Your task to perform on an android device: Search for usb-b on bestbuy.com, select the first entry, add it to the cart, then select checkout. Image 0: 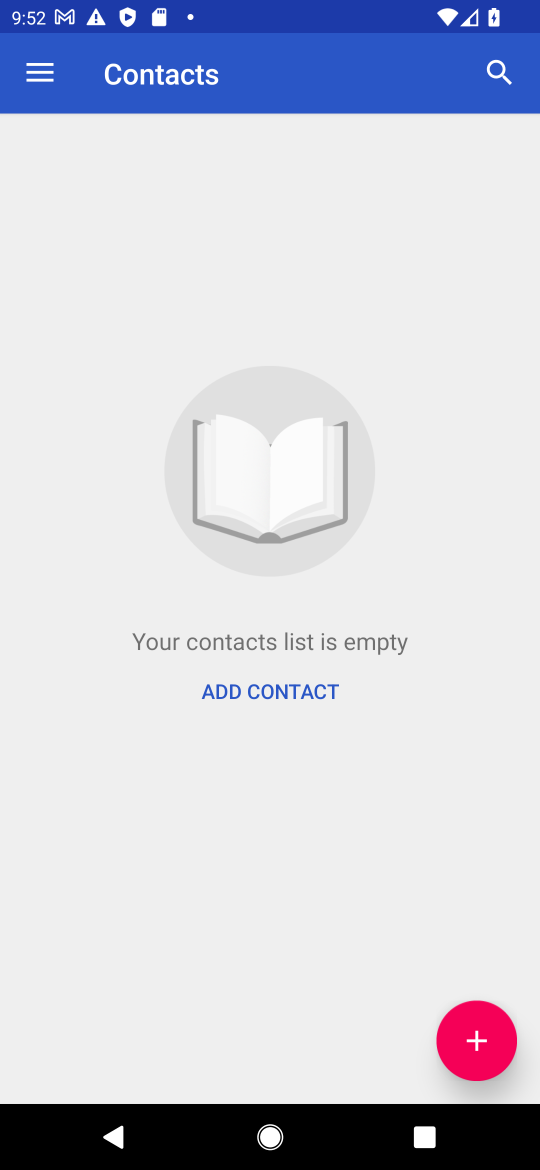
Step 0: press home button
Your task to perform on an android device: Search for usb-b on bestbuy.com, select the first entry, add it to the cart, then select checkout. Image 1: 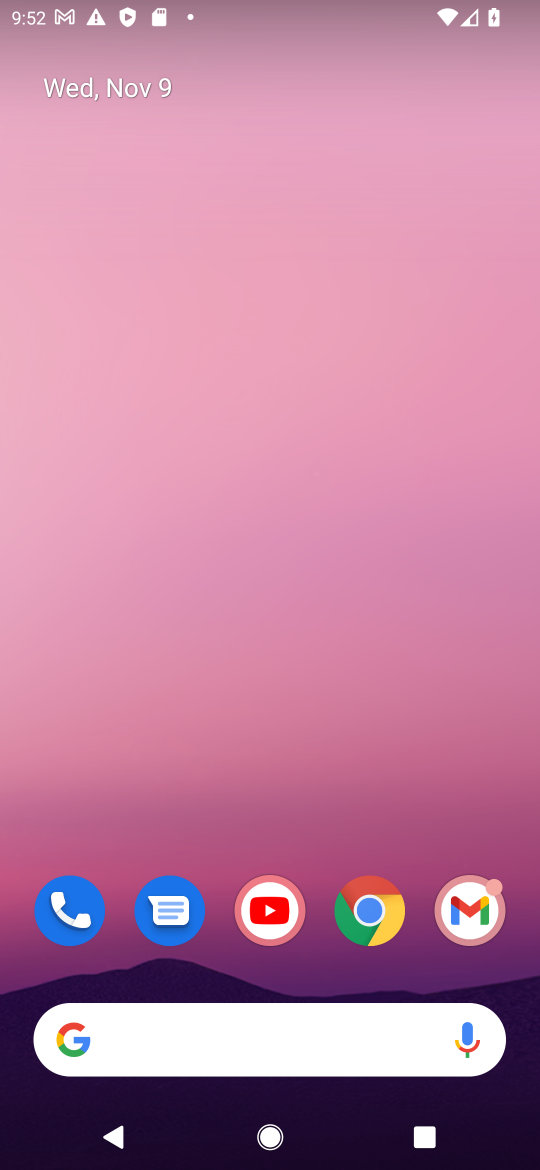
Step 1: click (363, 915)
Your task to perform on an android device: Search for usb-b on bestbuy.com, select the first entry, add it to the cart, then select checkout. Image 2: 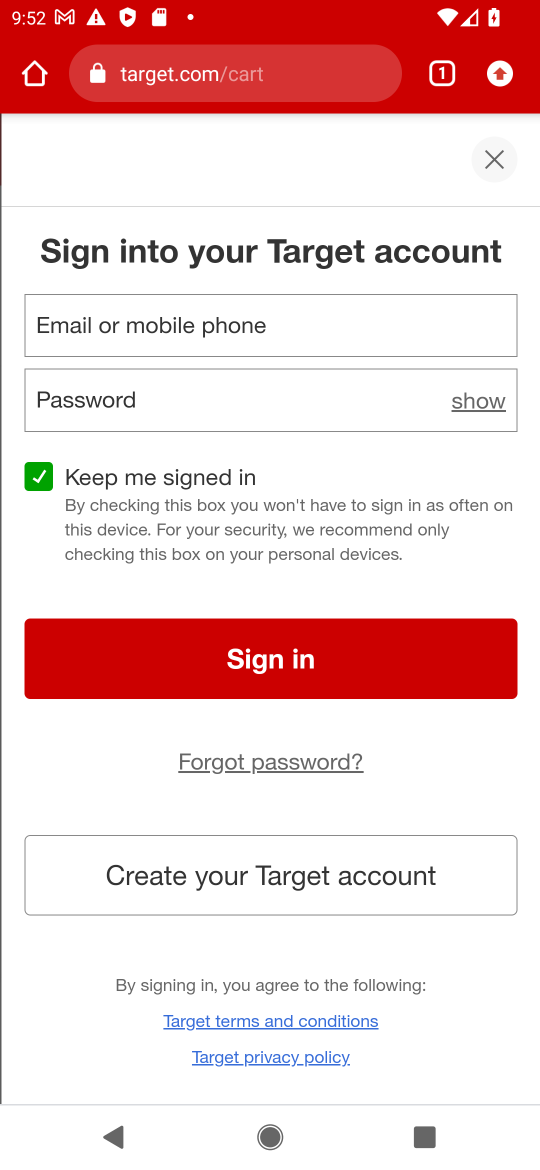
Step 2: click (152, 71)
Your task to perform on an android device: Search for usb-b on bestbuy.com, select the first entry, add it to the cart, then select checkout. Image 3: 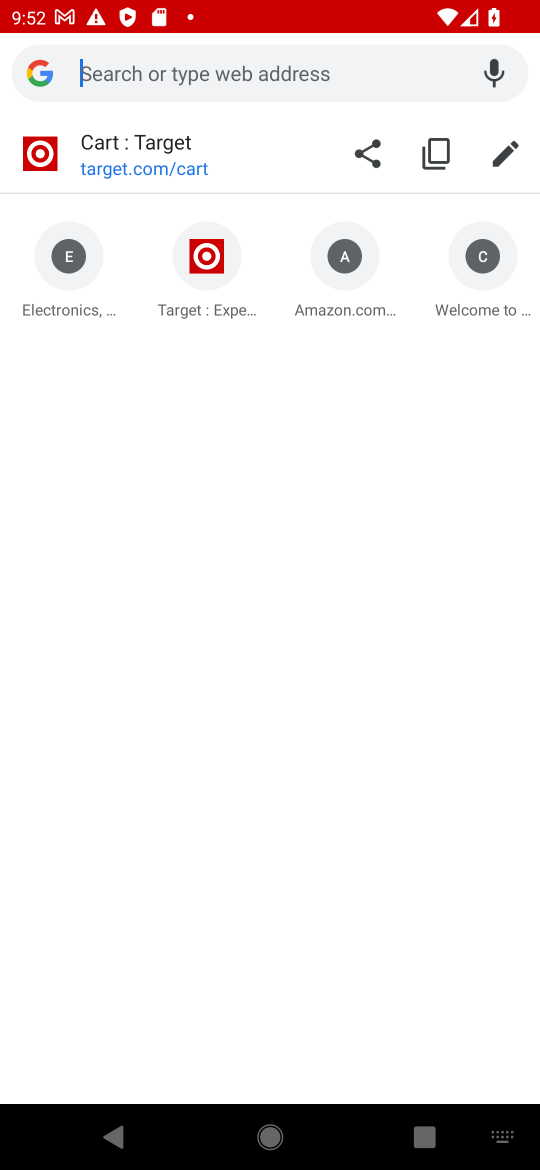
Step 3: type "bestbuy.com"
Your task to perform on an android device: Search for usb-b on bestbuy.com, select the first entry, add it to the cart, then select checkout. Image 4: 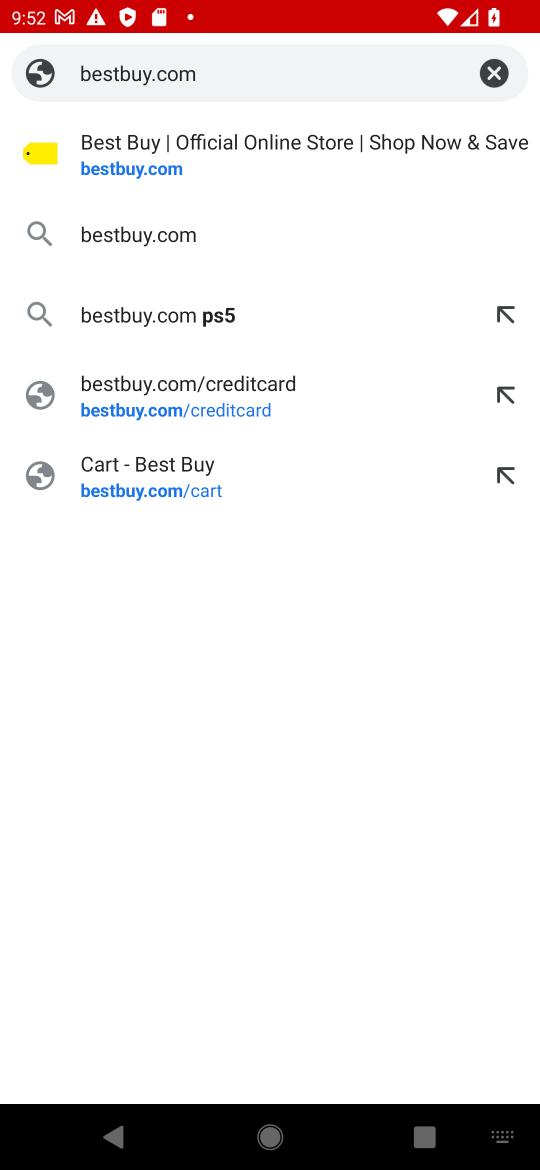
Step 4: click (141, 171)
Your task to perform on an android device: Search for usb-b on bestbuy.com, select the first entry, add it to the cart, then select checkout. Image 5: 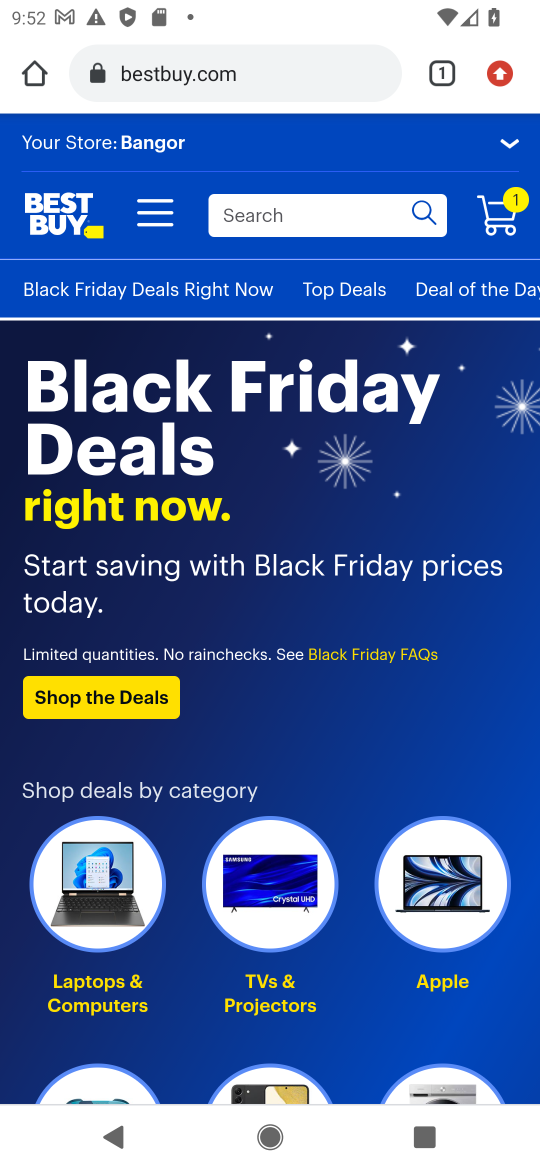
Step 5: click (237, 206)
Your task to perform on an android device: Search for usb-b on bestbuy.com, select the first entry, add it to the cart, then select checkout. Image 6: 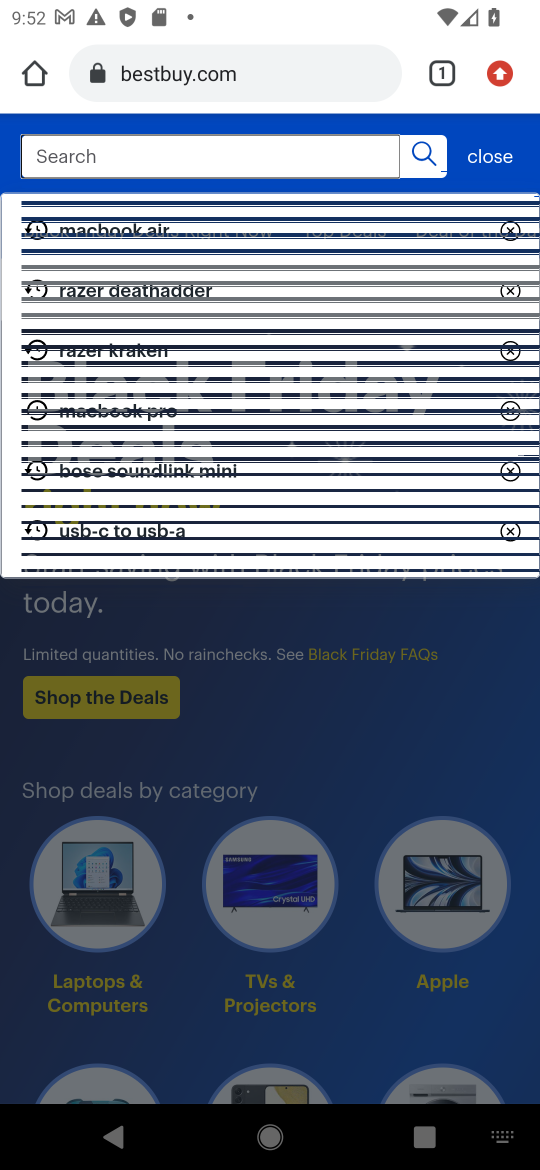
Step 6: type "usb-b"
Your task to perform on an android device: Search for usb-b on bestbuy.com, select the first entry, add it to the cart, then select checkout. Image 7: 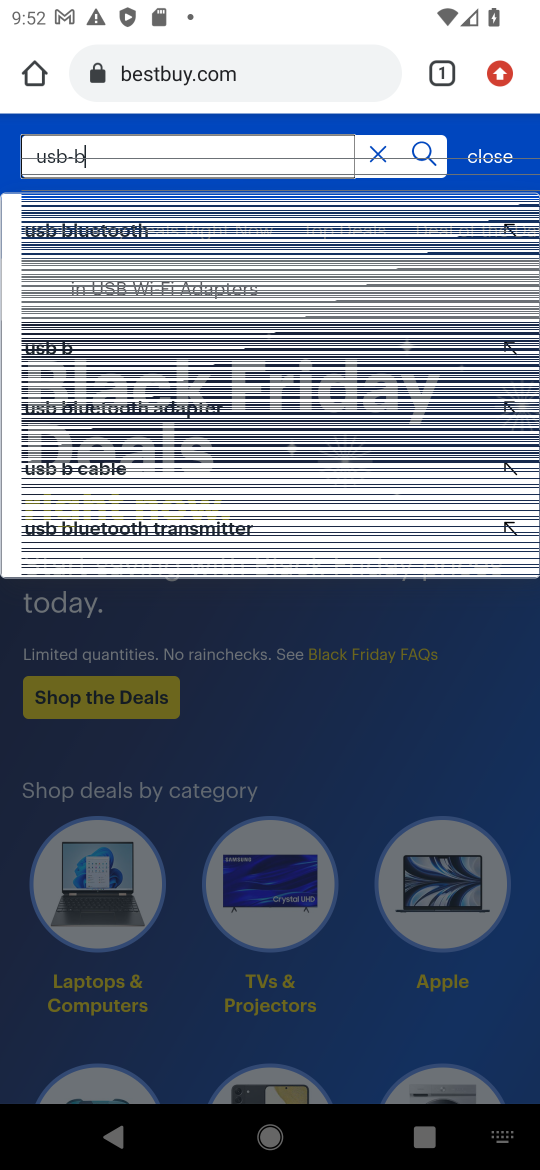
Step 7: click (63, 345)
Your task to perform on an android device: Search for usb-b on bestbuy.com, select the first entry, add it to the cart, then select checkout. Image 8: 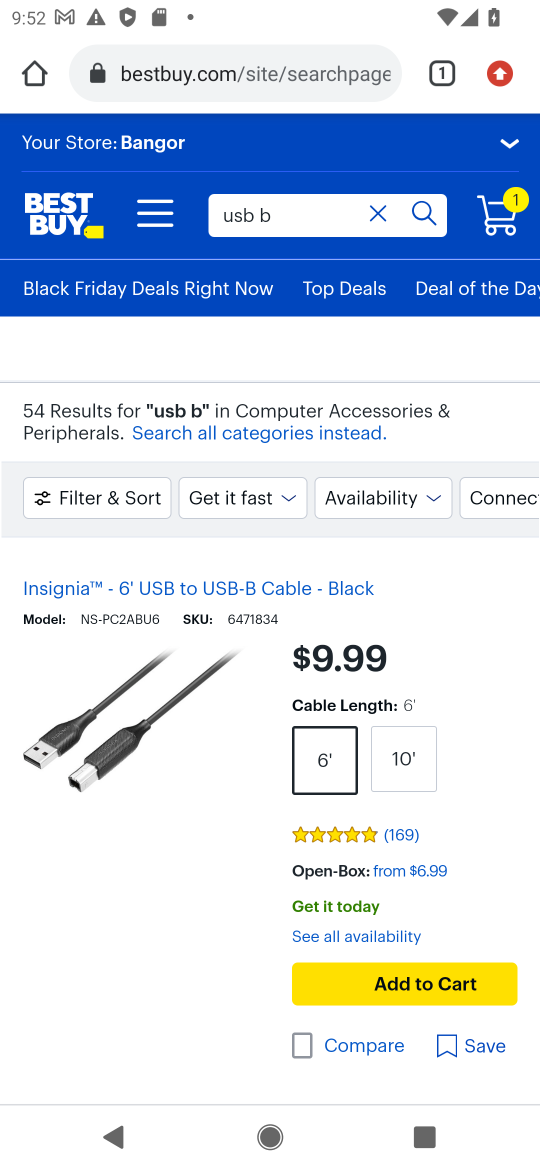
Step 8: drag from (130, 754) to (153, 575)
Your task to perform on an android device: Search for usb-b on bestbuy.com, select the first entry, add it to the cart, then select checkout. Image 9: 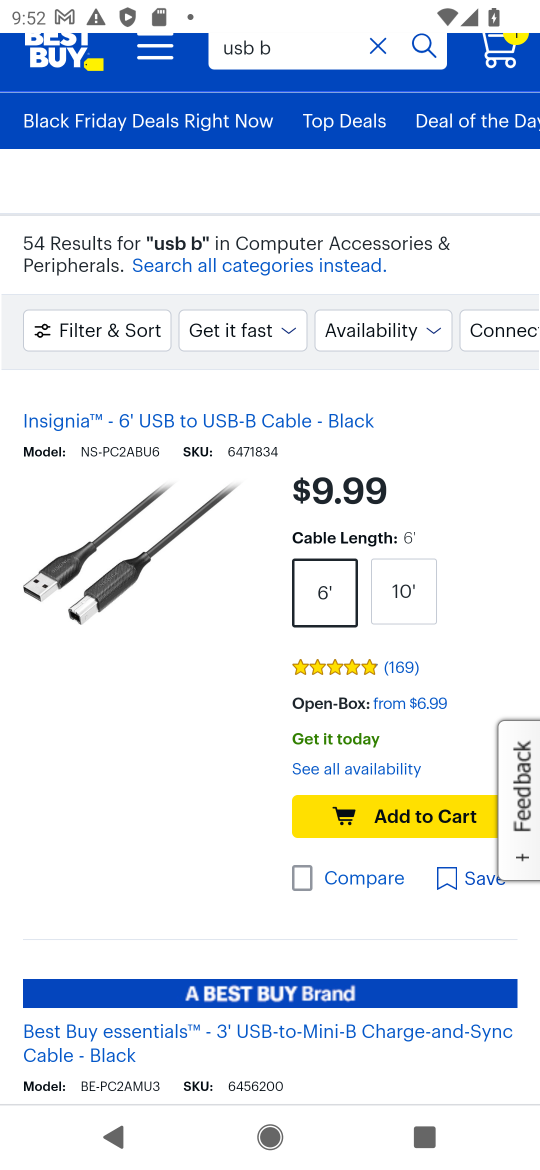
Step 9: click (371, 813)
Your task to perform on an android device: Search for usb-b on bestbuy.com, select the first entry, add it to the cart, then select checkout. Image 10: 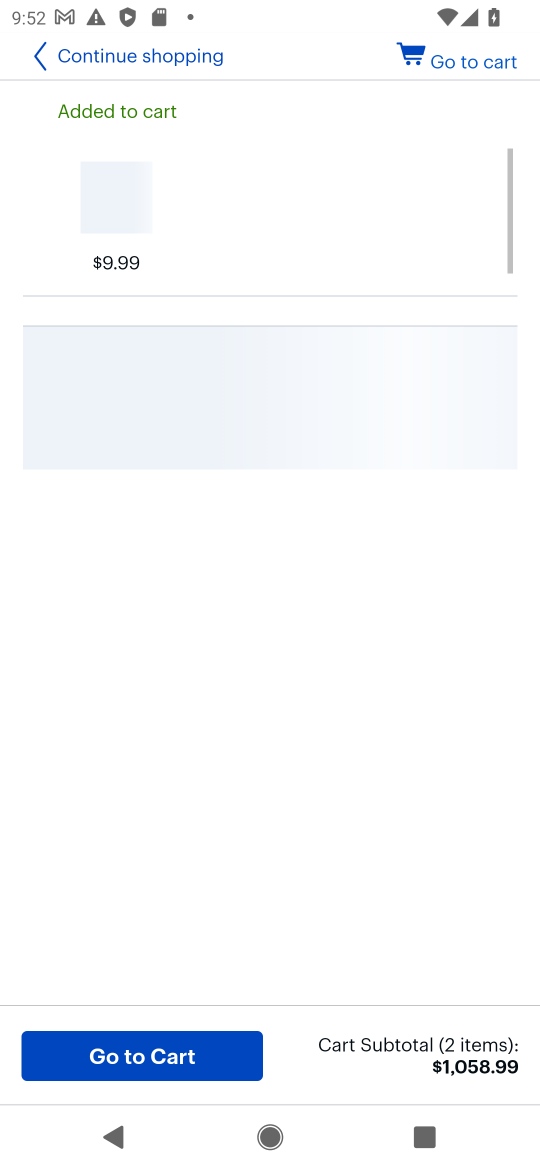
Step 10: click (486, 62)
Your task to perform on an android device: Search for usb-b on bestbuy.com, select the first entry, add it to the cart, then select checkout. Image 11: 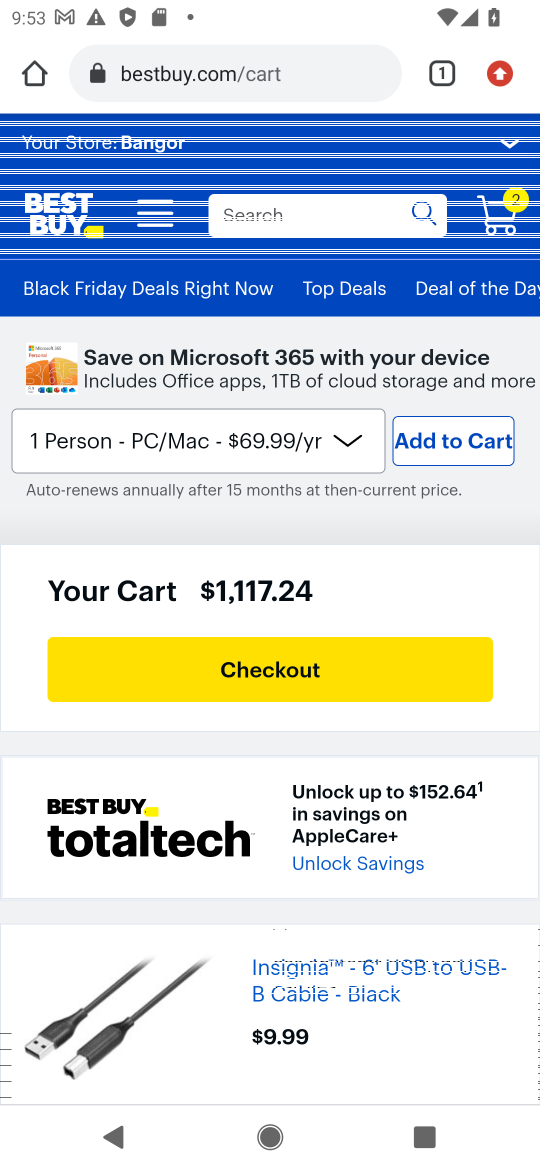
Step 11: click (259, 674)
Your task to perform on an android device: Search for usb-b on bestbuy.com, select the first entry, add it to the cart, then select checkout. Image 12: 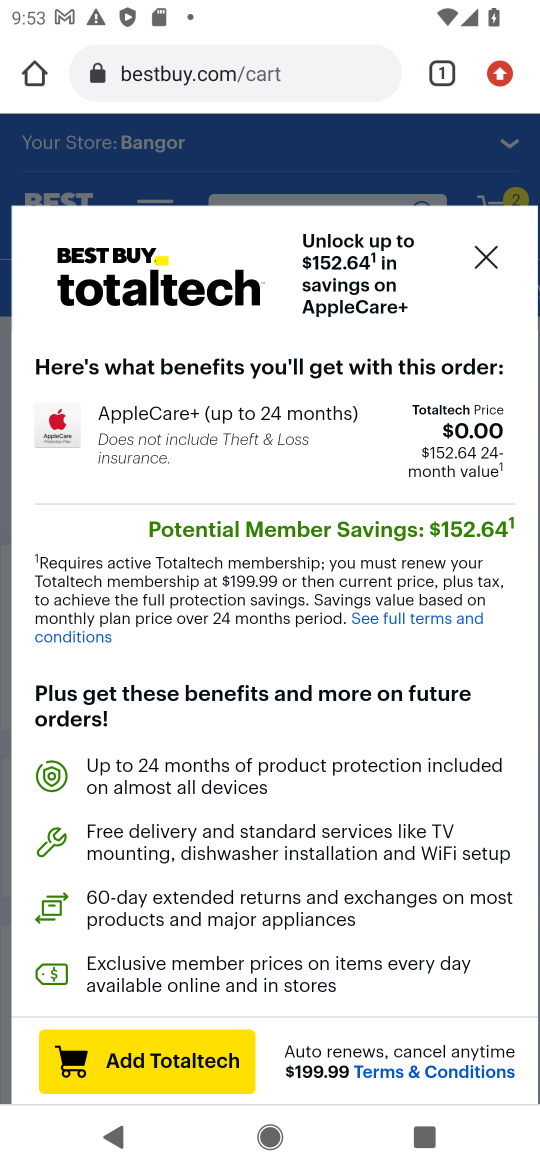
Step 12: click (468, 261)
Your task to perform on an android device: Search for usb-b on bestbuy.com, select the first entry, add it to the cart, then select checkout. Image 13: 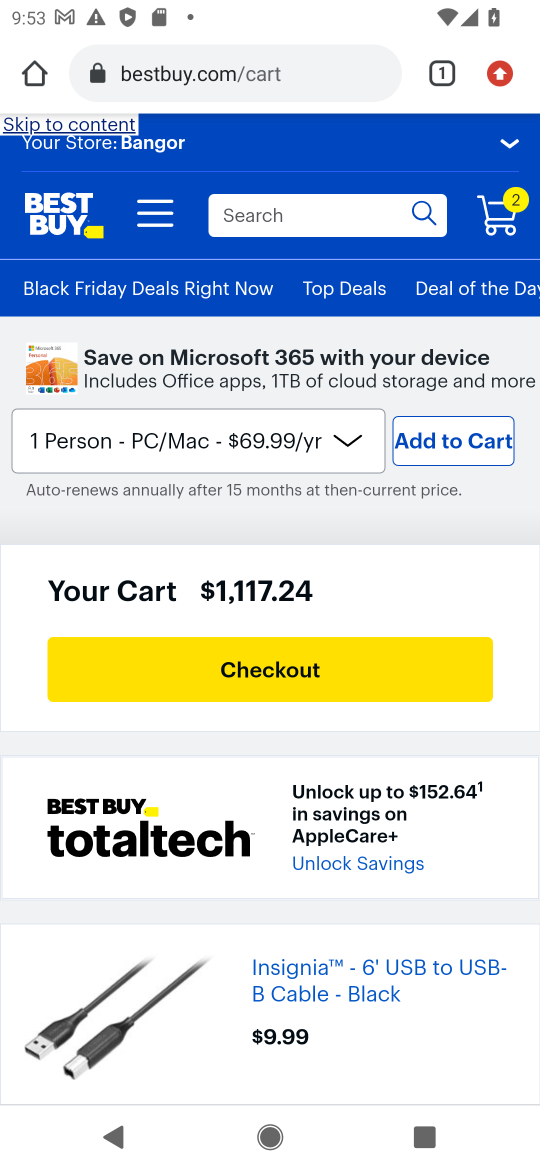
Step 13: click (242, 676)
Your task to perform on an android device: Search for usb-b on bestbuy.com, select the first entry, add it to the cart, then select checkout. Image 14: 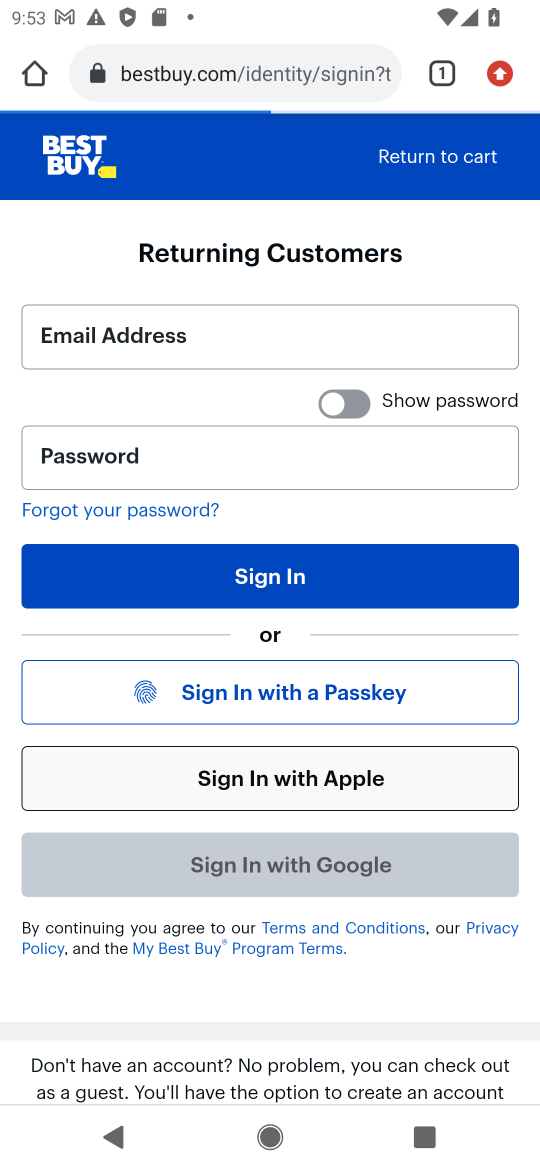
Step 14: task complete